Your task to perform on an android device: delete location history Image 0: 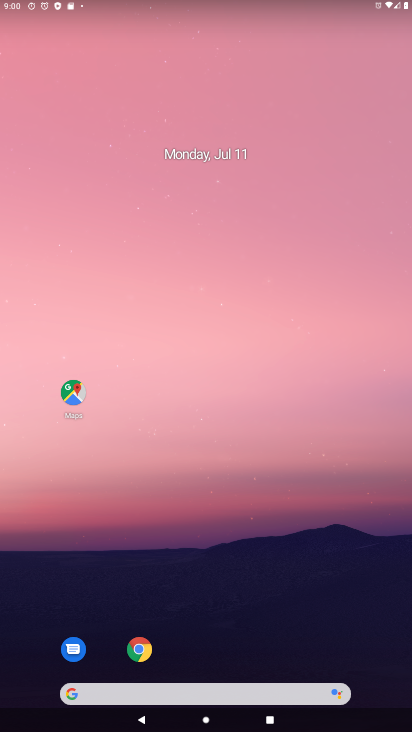
Step 0: drag from (194, 701) to (411, 107)
Your task to perform on an android device: delete location history Image 1: 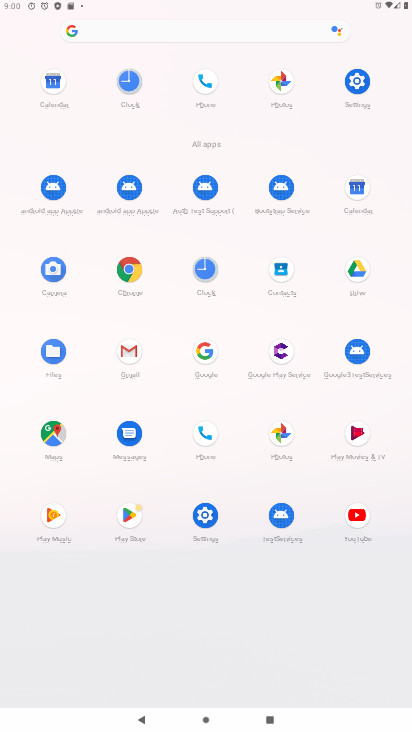
Step 1: click (50, 433)
Your task to perform on an android device: delete location history Image 2: 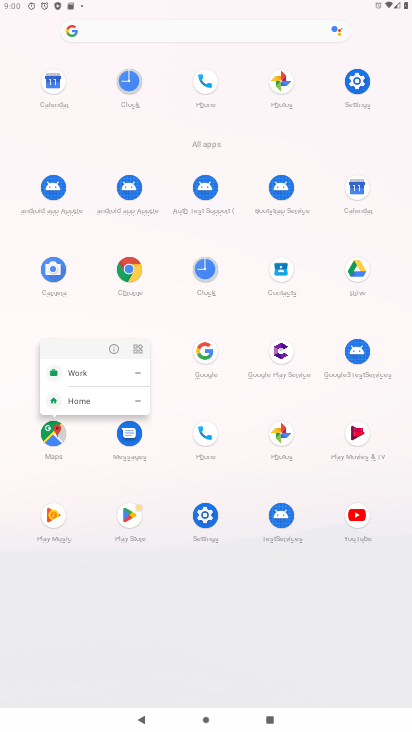
Step 2: click (51, 433)
Your task to perform on an android device: delete location history Image 3: 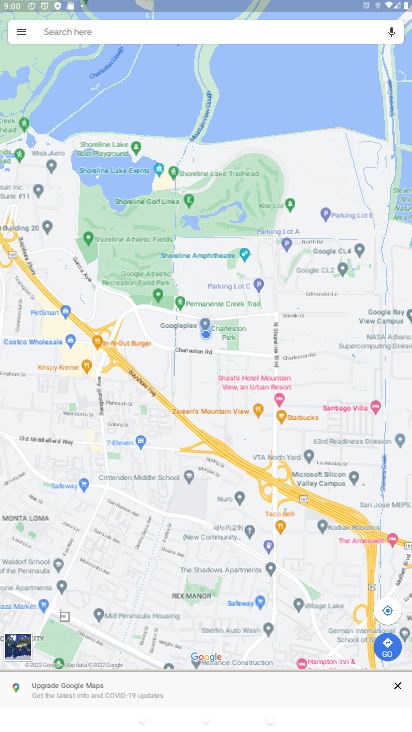
Step 3: click (19, 31)
Your task to perform on an android device: delete location history Image 4: 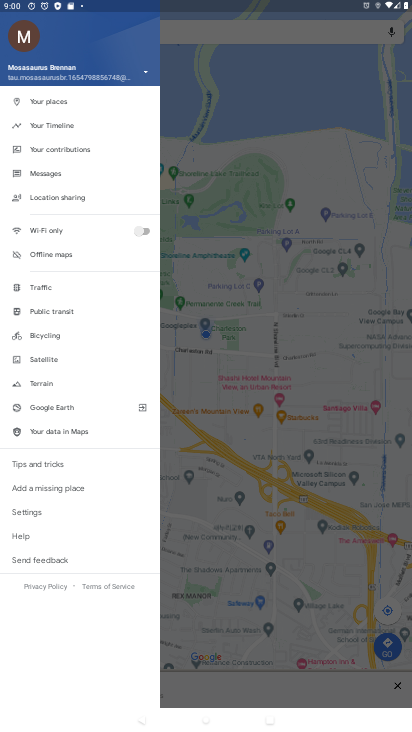
Step 4: click (31, 512)
Your task to perform on an android device: delete location history Image 5: 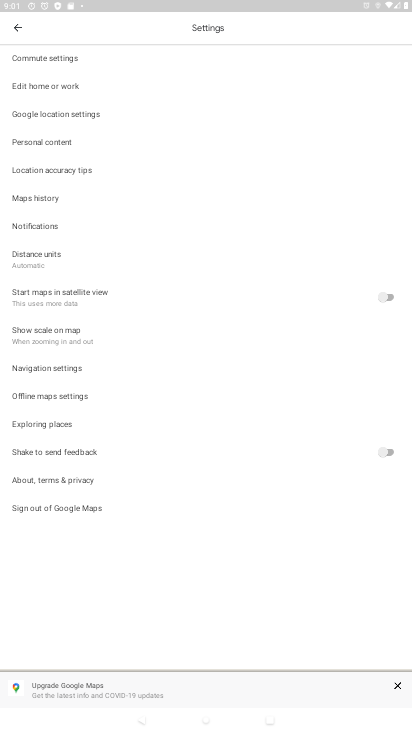
Step 5: click (43, 139)
Your task to perform on an android device: delete location history Image 6: 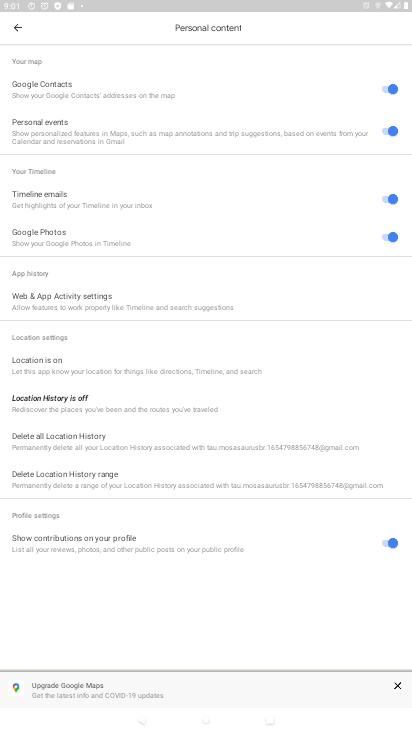
Step 6: click (64, 445)
Your task to perform on an android device: delete location history Image 7: 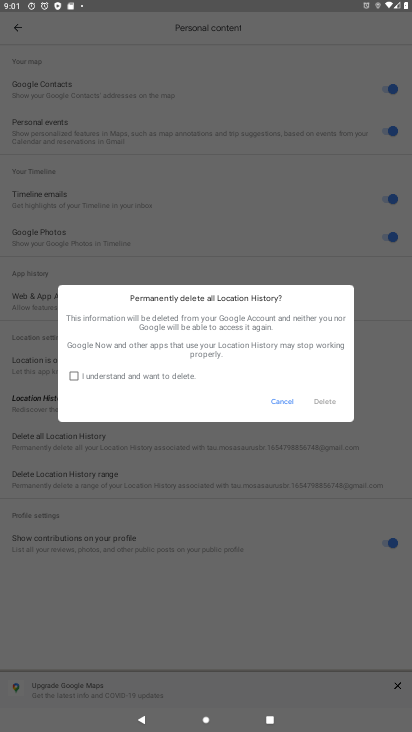
Step 7: click (70, 373)
Your task to perform on an android device: delete location history Image 8: 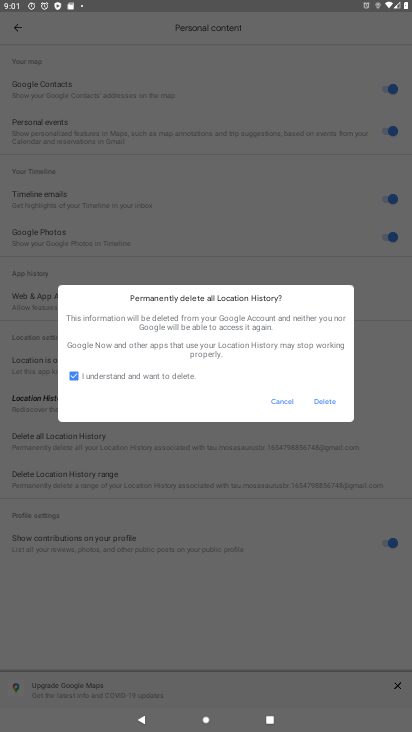
Step 8: click (328, 398)
Your task to perform on an android device: delete location history Image 9: 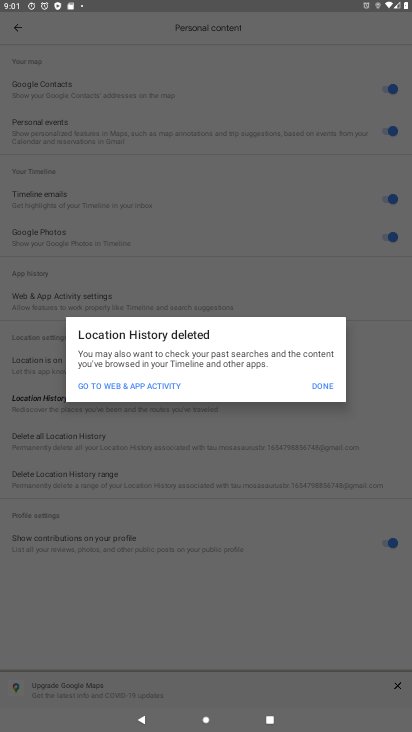
Step 9: click (320, 383)
Your task to perform on an android device: delete location history Image 10: 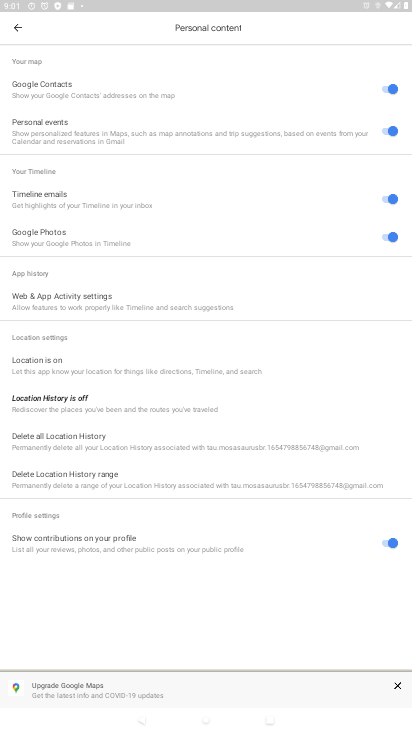
Step 10: task complete